Your task to perform on an android device: toggle data saver in the chrome app Image 0: 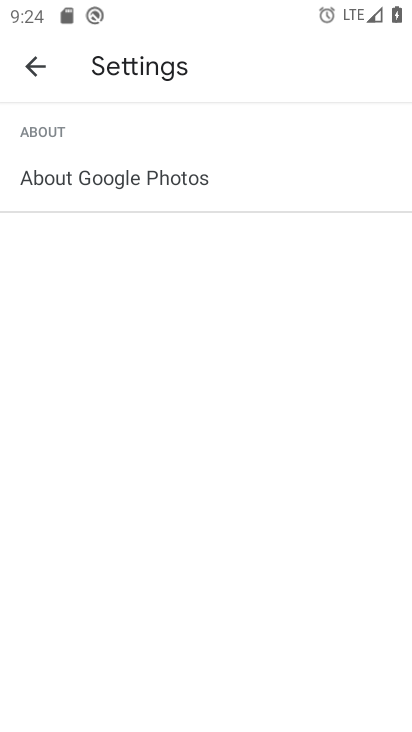
Step 0: press home button
Your task to perform on an android device: toggle data saver in the chrome app Image 1: 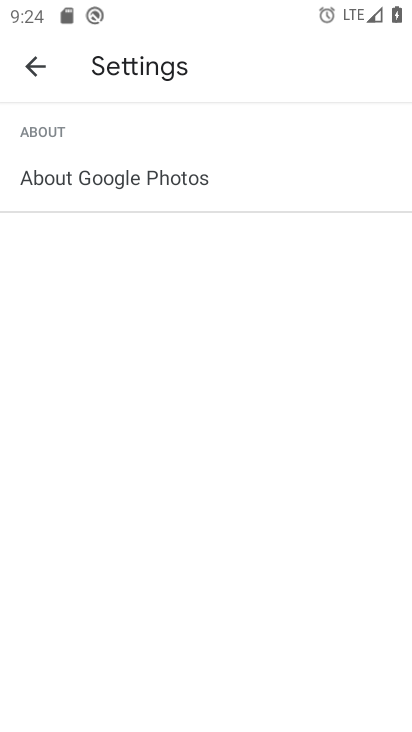
Step 1: press home button
Your task to perform on an android device: toggle data saver in the chrome app Image 2: 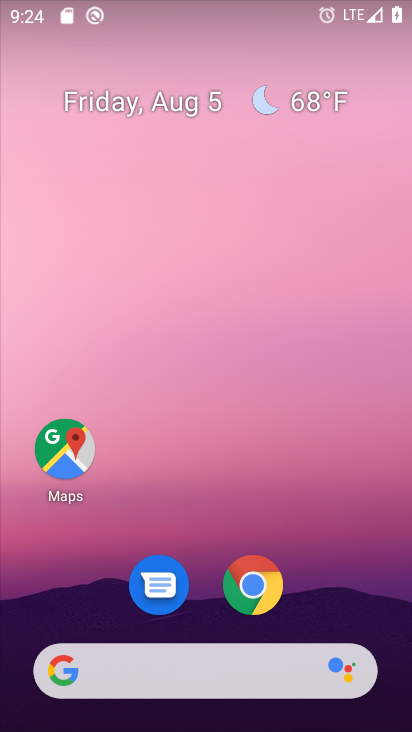
Step 2: click (266, 575)
Your task to perform on an android device: toggle data saver in the chrome app Image 3: 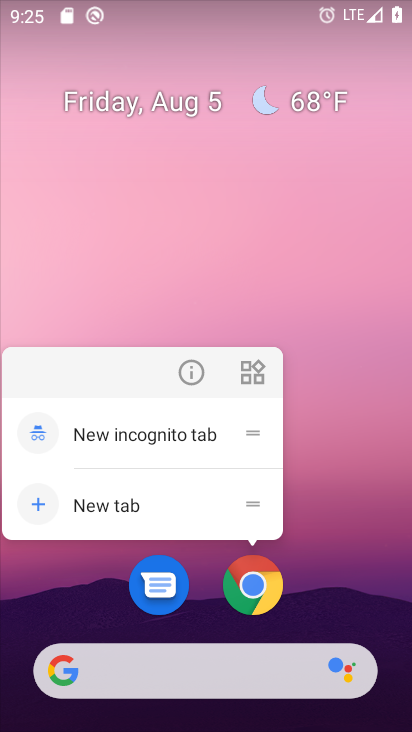
Step 3: click (266, 575)
Your task to perform on an android device: toggle data saver in the chrome app Image 4: 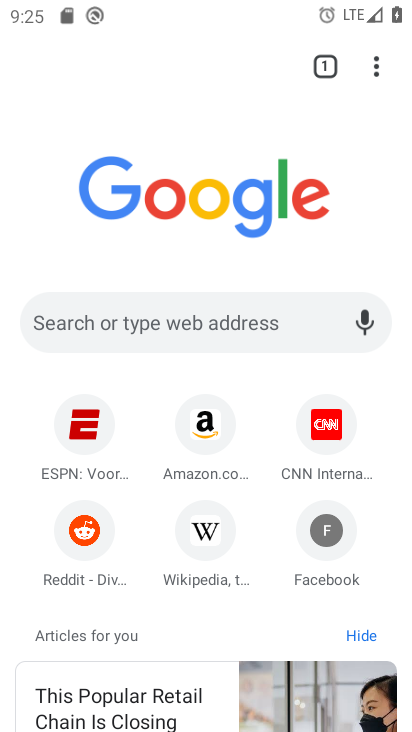
Step 4: click (375, 69)
Your task to perform on an android device: toggle data saver in the chrome app Image 5: 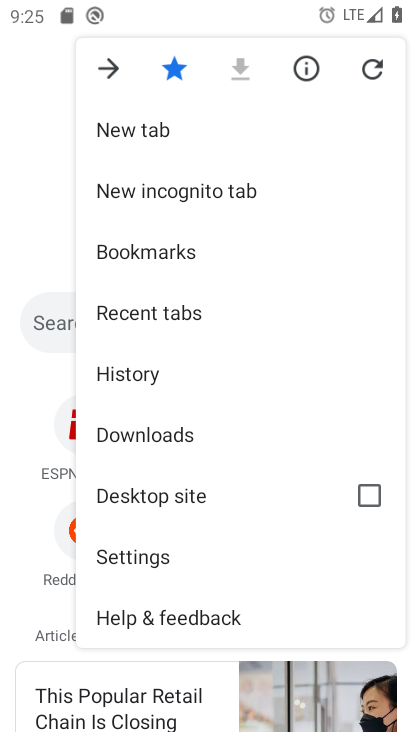
Step 5: click (135, 550)
Your task to perform on an android device: toggle data saver in the chrome app Image 6: 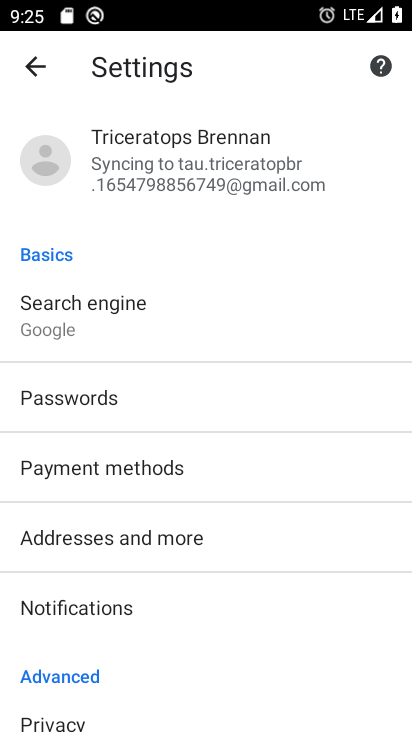
Step 6: drag from (212, 642) to (314, 52)
Your task to perform on an android device: toggle data saver in the chrome app Image 7: 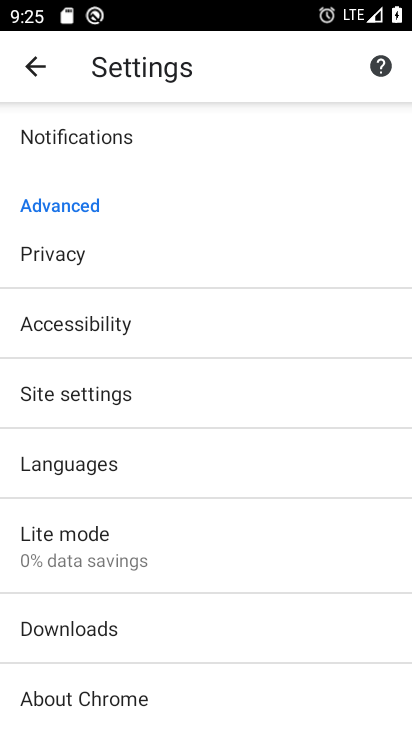
Step 7: click (172, 544)
Your task to perform on an android device: toggle data saver in the chrome app Image 8: 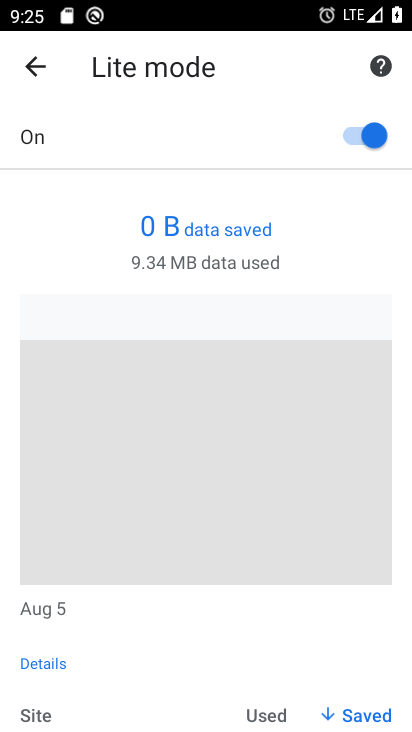
Step 8: click (365, 134)
Your task to perform on an android device: toggle data saver in the chrome app Image 9: 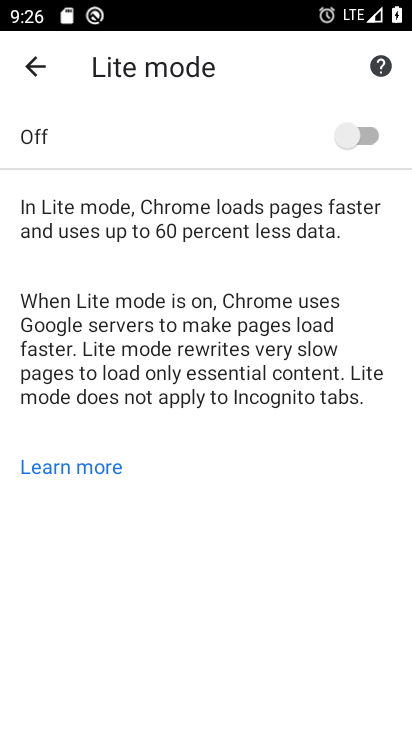
Step 9: task complete